Your task to perform on an android device: open app "NewsBreak: Local News & Alerts" Image 0: 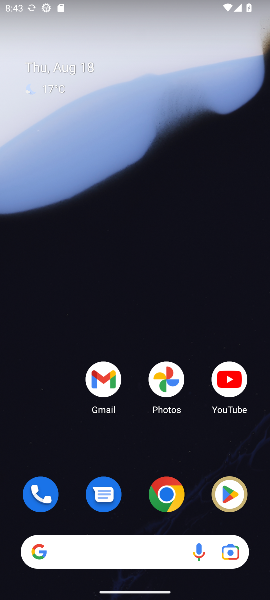
Step 0: click (229, 493)
Your task to perform on an android device: open app "NewsBreak: Local News & Alerts" Image 1: 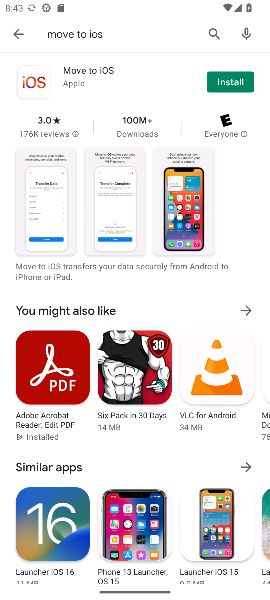
Step 1: click (209, 33)
Your task to perform on an android device: open app "NewsBreak: Local News & Alerts" Image 2: 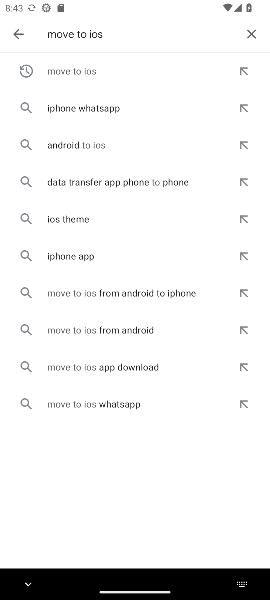
Step 2: click (250, 36)
Your task to perform on an android device: open app "NewsBreak: Local News & Alerts" Image 3: 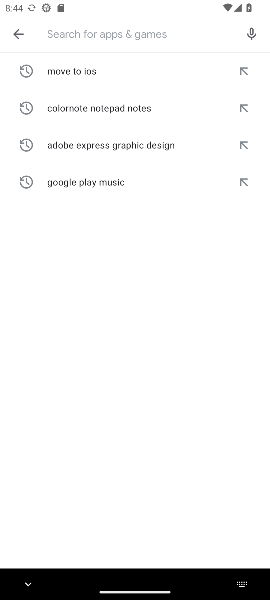
Step 3: type "NewsBreak: Local News & Alerts"
Your task to perform on an android device: open app "NewsBreak: Local News & Alerts" Image 4: 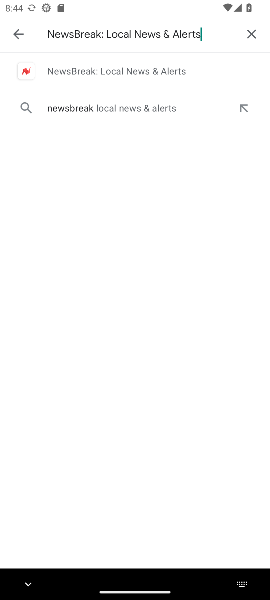
Step 4: click (98, 73)
Your task to perform on an android device: open app "NewsBreak: Local News & Alerts" Image 5: 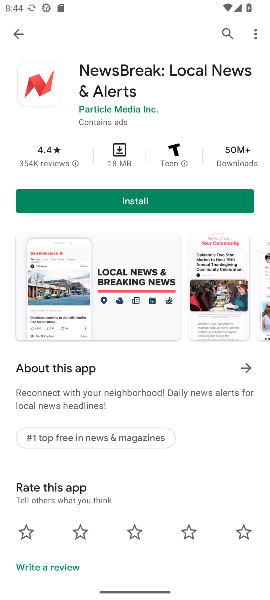
Step 5: task complete